Your task to perform on an android device: Clear the cart on bestbuy. Search for "logitech g pro" on bestbuy, select the first entry, and add it to the cart. Image 0: 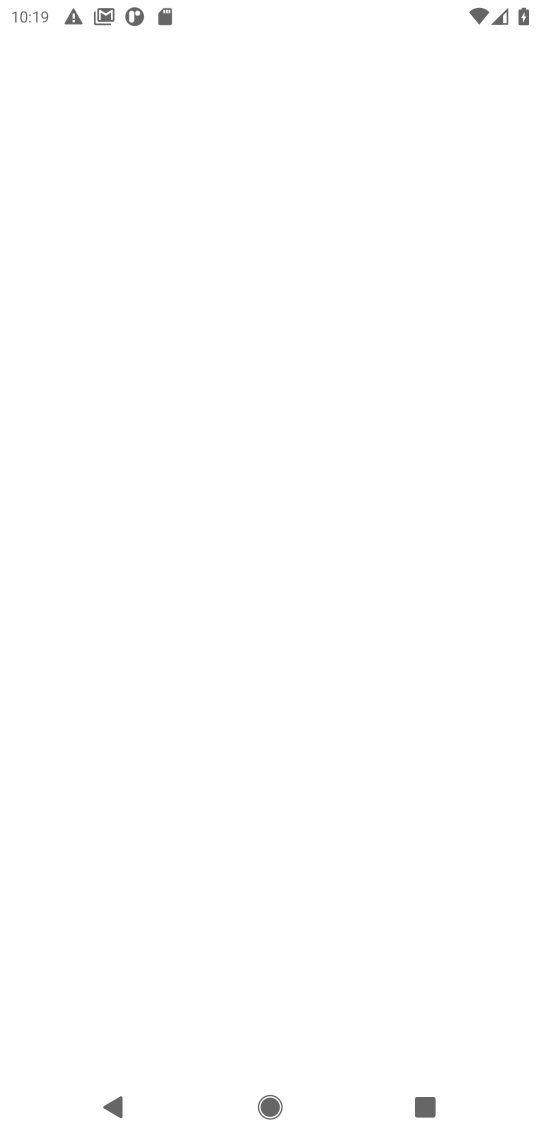
Step 0: press home button
Your task to perform on an android device: Clear the cart on bestbuy. Search for "logitech g pro" on bestbuy, select the first entry, and add it to the cart. Image 1: 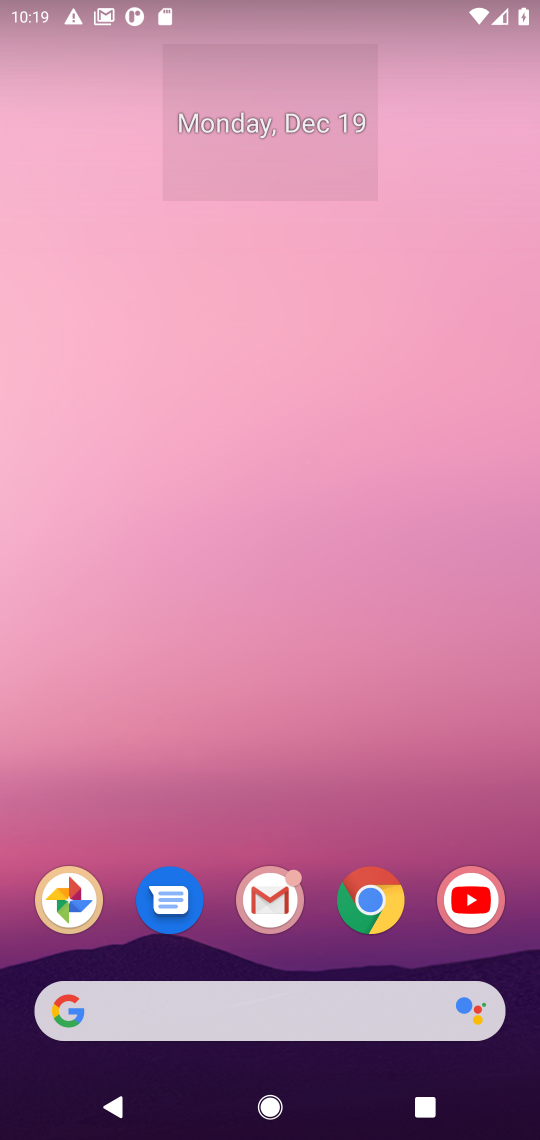
Step 1: click (363, 908)
Your task to perform on an android device: Clear the cart on bestbuy. Search for "logitech g pro" on bestbuy, select the first entry, and add it to the cart. Image 2: 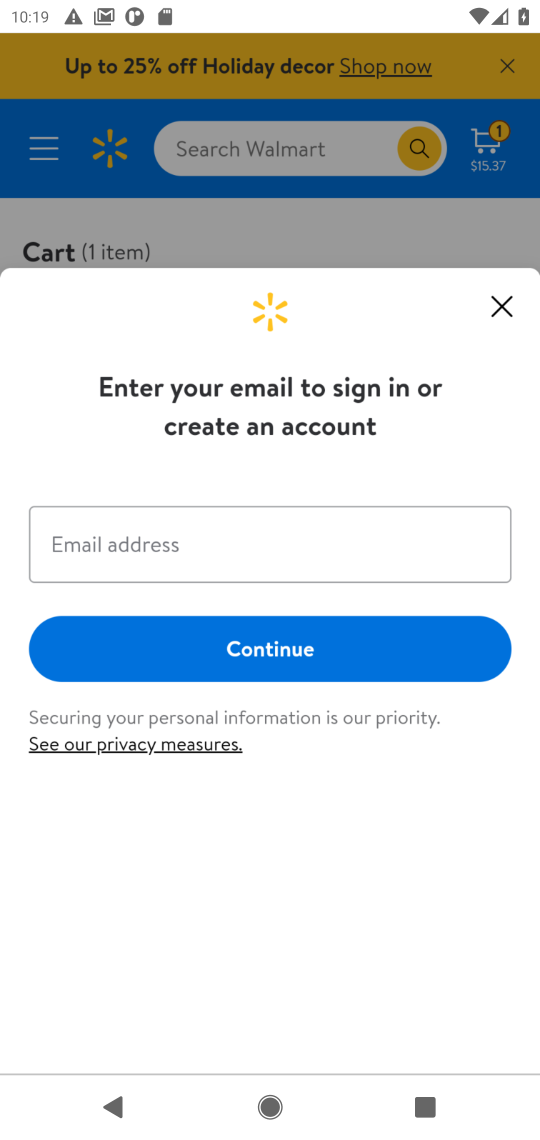
Step 2: click (500, 309)
Your task to perform on an android device: Clear the cart on bestbuy. Search for "logitech g pro" on bestbuy, select the first entry, and add it to the cart. Image 3: 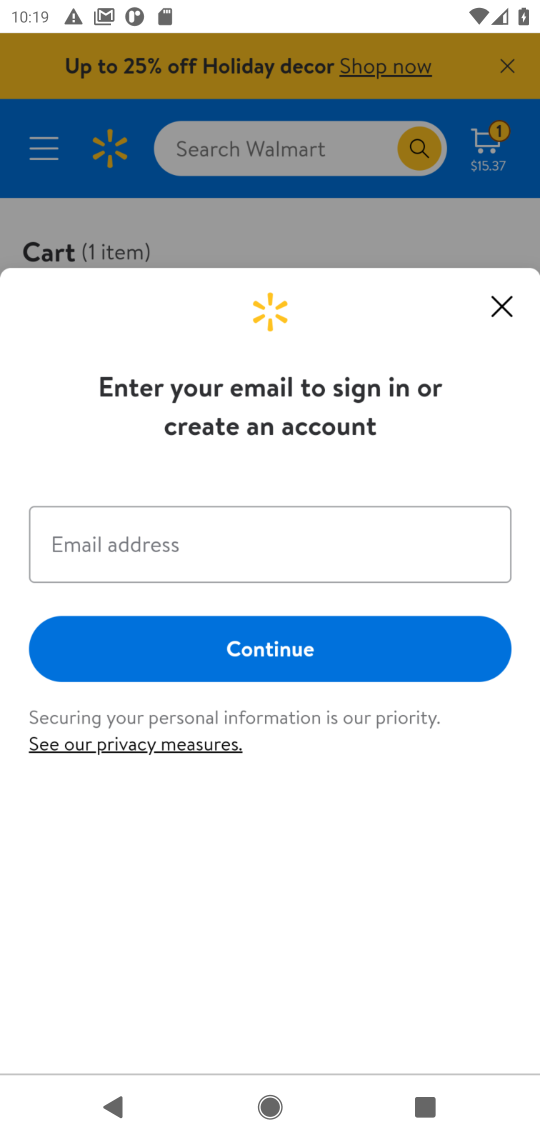
Step 3: click (500, 309)
Your task to perform on an android device: Clear the cart on bestbuy. Search for "logitech g pro" on bestbuy, select the first entry, and add it to the cart. Image 4: 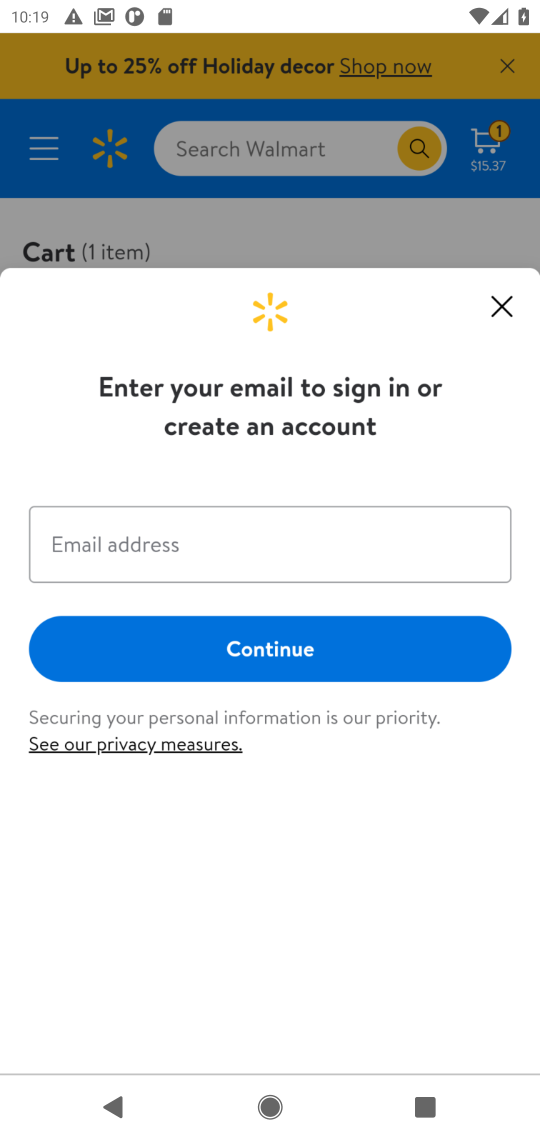
Step 4: click (276, 234)
Your task to perform on an android device: Clear the cart on bestbuy. Search for "logitech g pro" on bestbuy, select the first entry, and add it to the cart. Image 5: 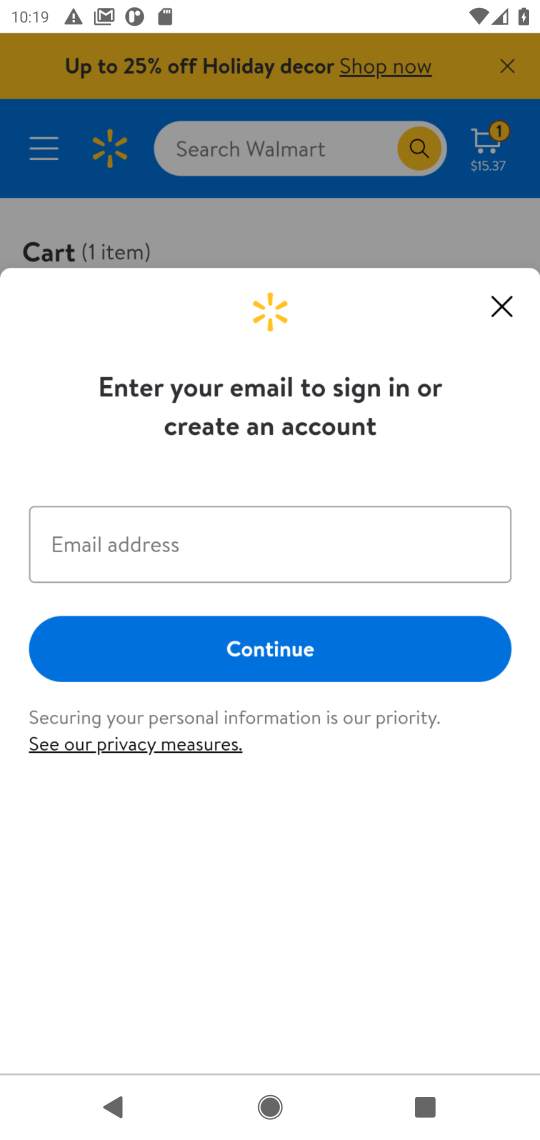
Step 5: click (105, 1100)
Your task to perform on an android device: Clear the cart on bestbuy. Search for "logitech g pro" on bestbuy, select the first entry, and add it to the cart. Image 6: 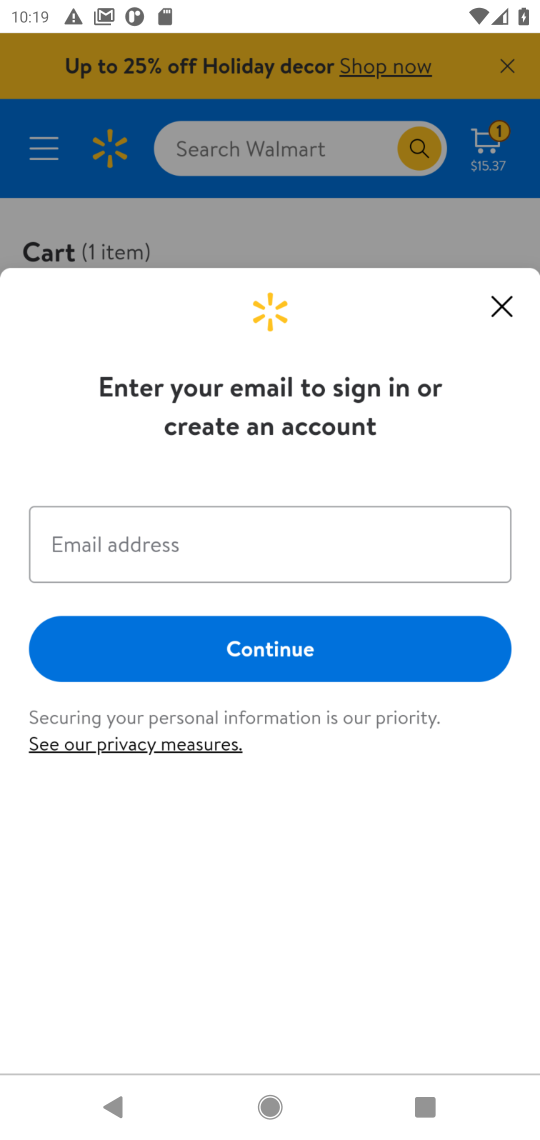
Step 6: press home button
Your task to perform on an android device: Clear the cart on bestbuy. Search for "logitech g pro" on bestbuy, select the first entry, and add it to the cart. Image 7: 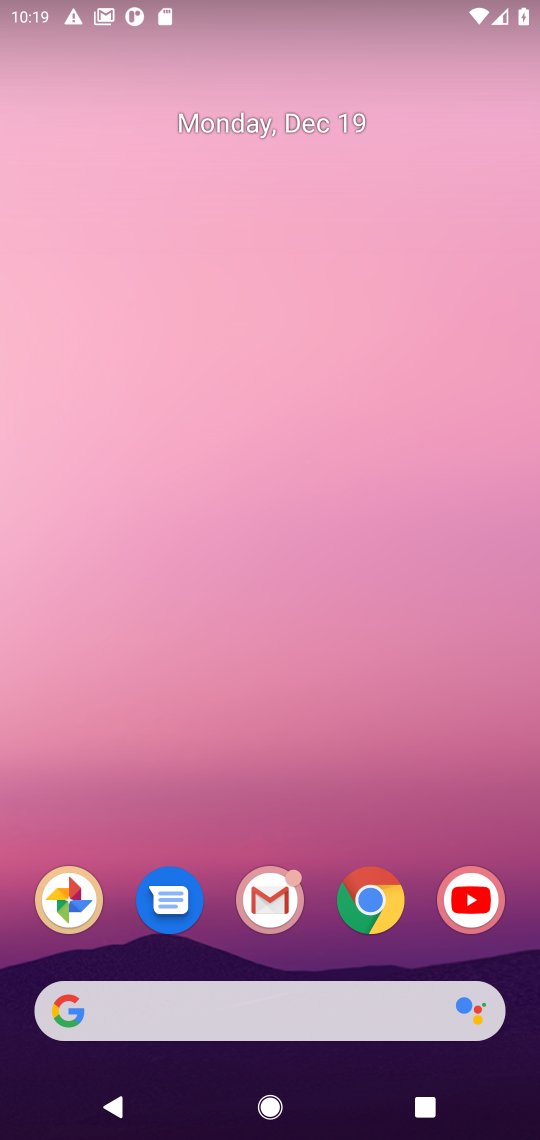
Step 7: drag from (210, 1013) to (238, 149)
Your task to perform on an android device: Clear the cart on bestbuy. Search for "logitech g pro" on bestbuy, select the first entry, and add it to the cart. Image 8: 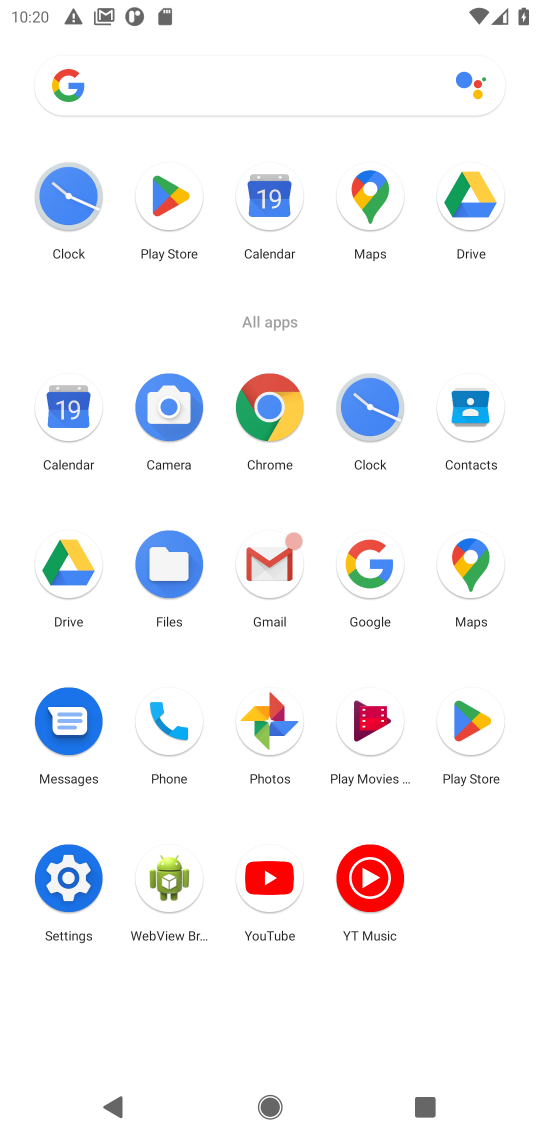
Step 8: click (357, 556)
Your task to perform on an android device: Clear the cart on bestbuy. Search for "logitech g pro" on bestbuy, select the first entry, and add it to the cart. Image 9: 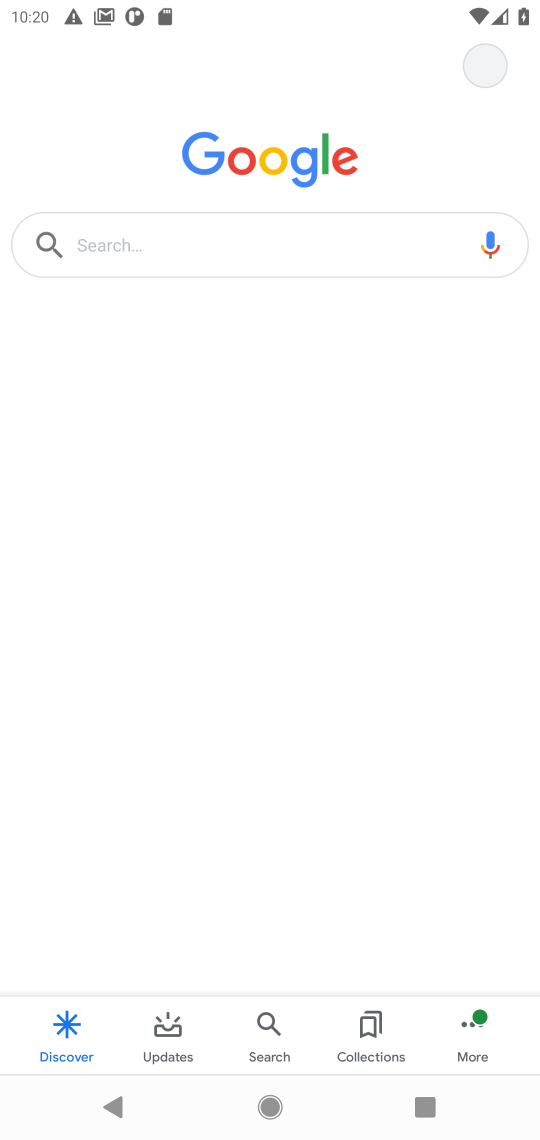
Step 9: click (286, 243)
Your task to perform on an android device: Clear the cart on bestbuy. Search for "logitech g pro" on bestbuy, select the first entry, and add it to the cart. Image 10: 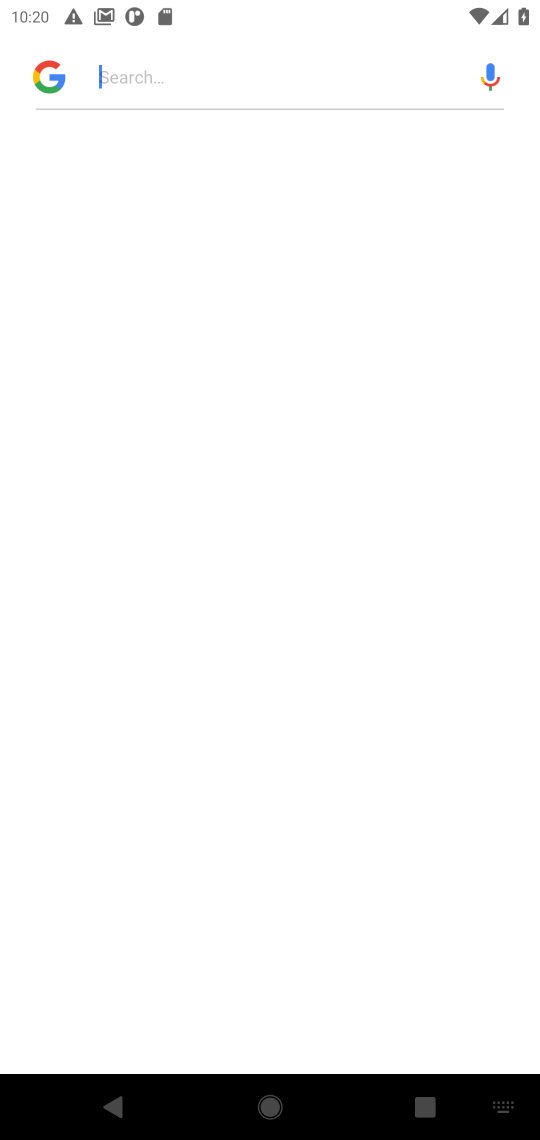
Step 10: type "bestbuy"
Your task to perform on an android device: Clear the cart on bestbuy. Search for "logitech g pro" on bestbuy, select the first entry, and add it to the cart. Image 11: 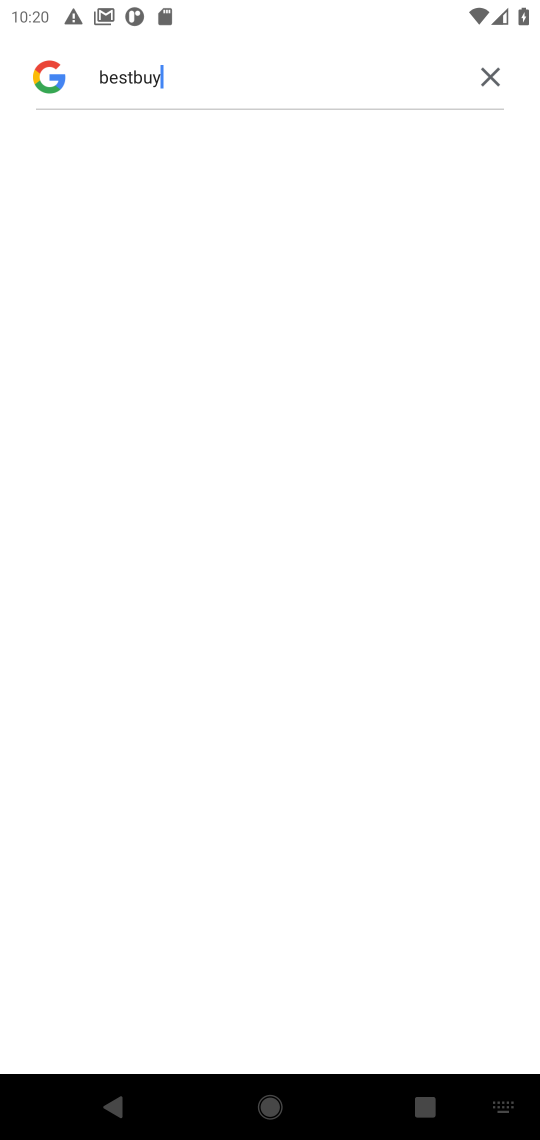
Step 11: task complete